Your task to perform on an android device: turn on wifi Image 0: 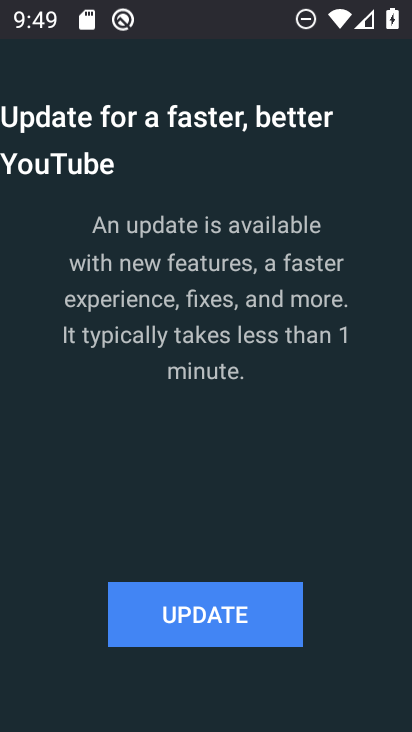
Step 0: press home button
Your task to perform on an android device: turn on wifi Image 1: 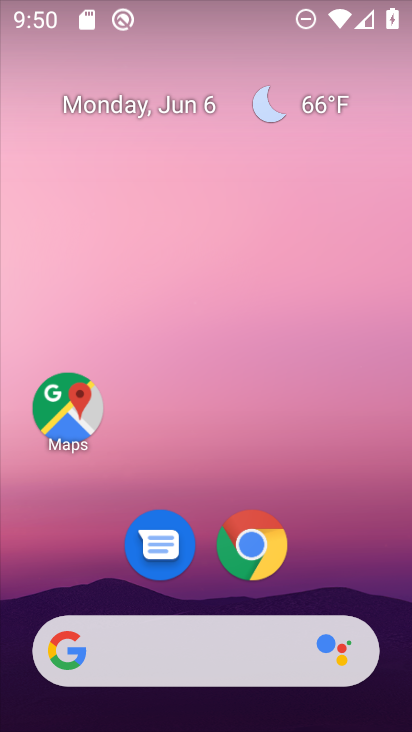
Step 1: drag from (215, 577) to (149, 313)
Your task to perform on an android device: turn on wifi Image 2: 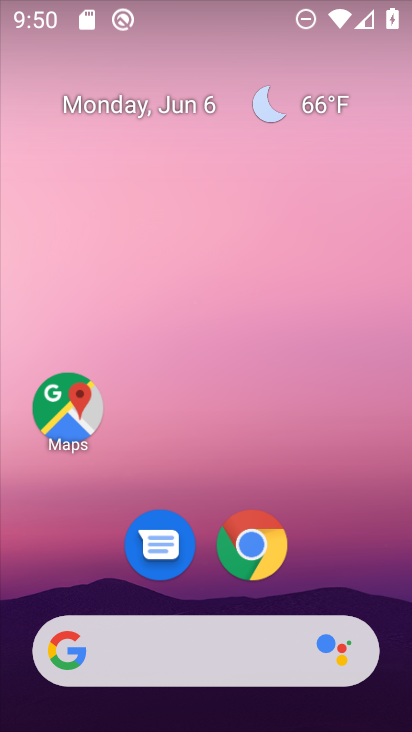
Step 2: drag from (183, 604) to (156, 229)
Your task to perform on an android device: turn on wifi Image 3: 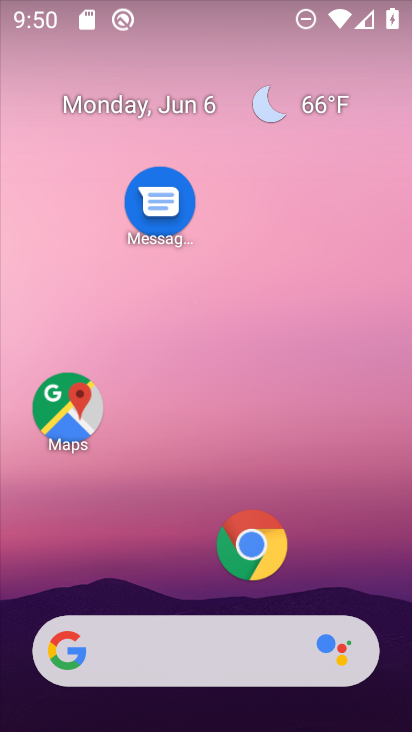
Step 3: drag from (164, 588) to (79, 163)
Your task to perform on an android device: turn on wifi Image 4: 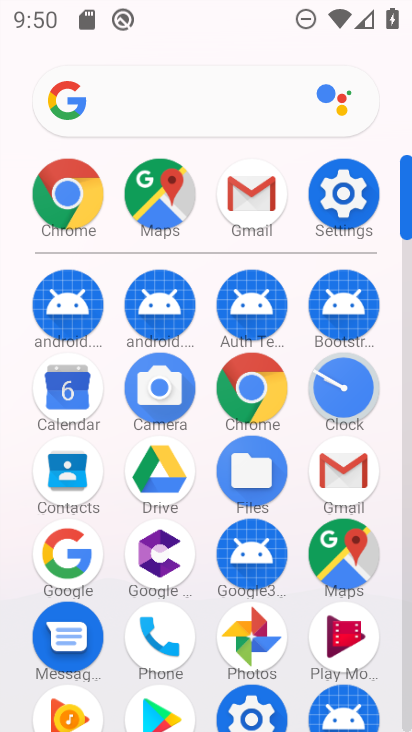
Step 4: click (334, 195)
Your task to perform on an android device: turn on wifi Image 5: 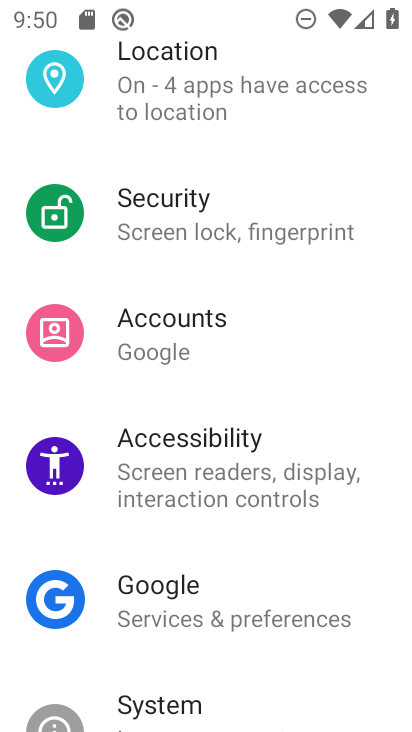
Step 5: drag from (143, 156) to (284, 603)
Your task to perform on an android device: turn on wifi Image 6: 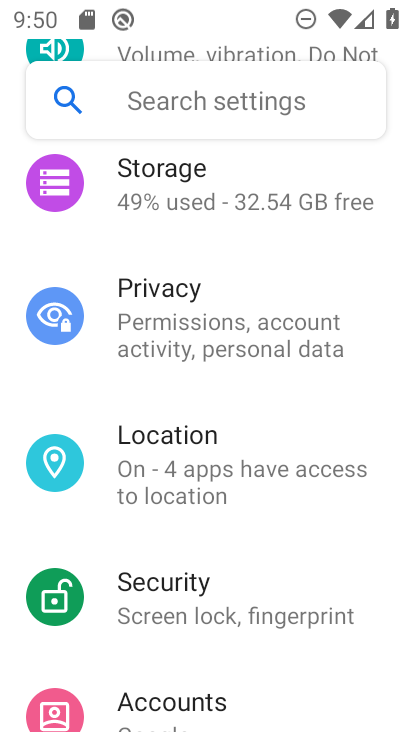
Step 6: drag from (174, 236) to (286, 669)
Your task to perform on an android device: turn on wifi Image 7: 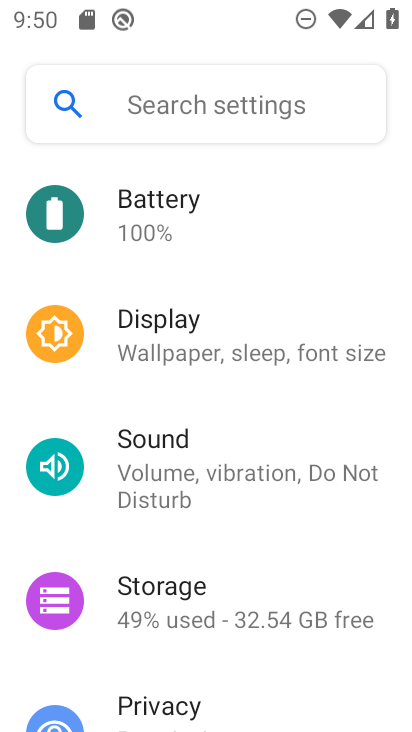
Step 7: drag from (211, 236) to (287, 690)
Your task to perform on an android device: turn on wifi Image 8: 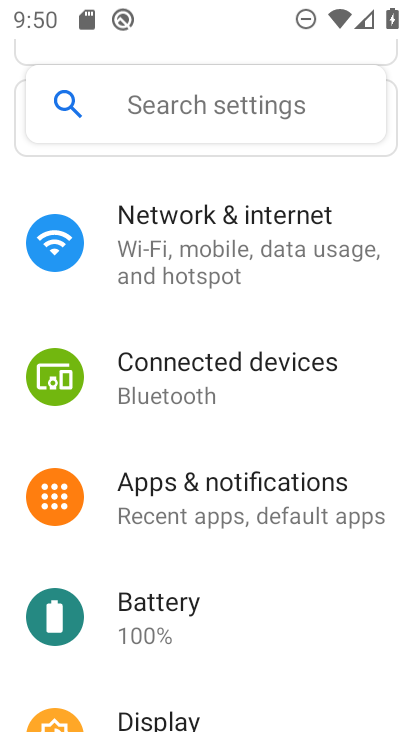
Step 8: click (166, 267)
Your task to perform on an android device: turn on wifi Image 9: 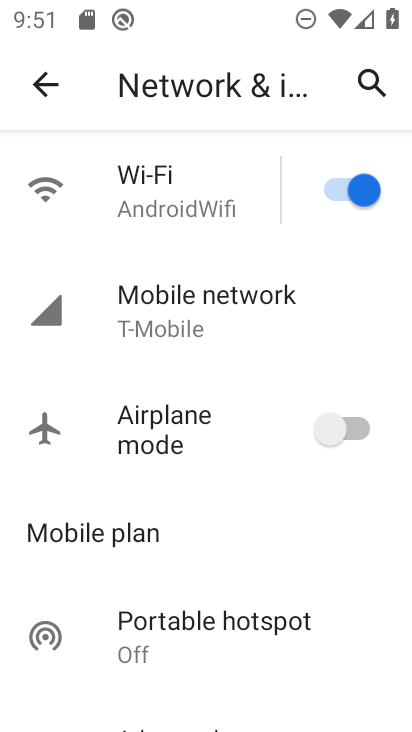
Step 9: task complete